Your task to perform on an android device: turn off javascript in the chrome app Image 0: 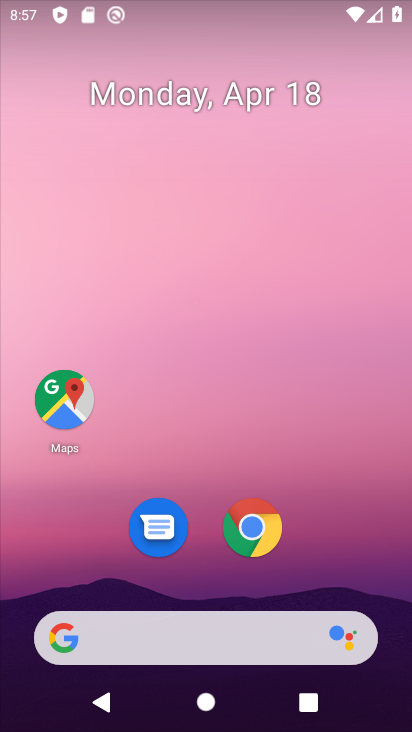
Step 0: click (311, 196)
Your task to perform on an android device: turn off javascript in the chrome app Image 1: 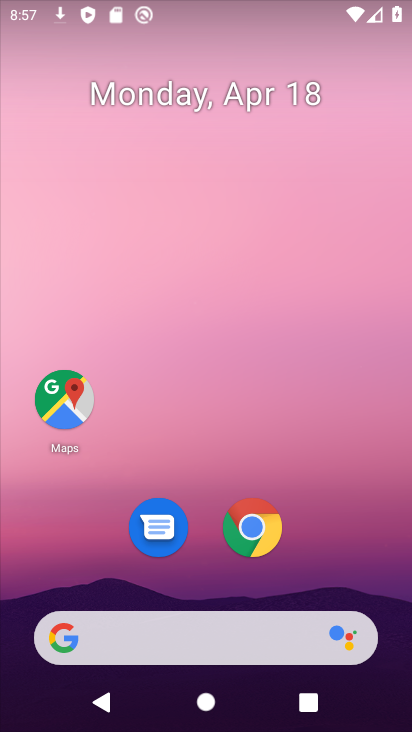
Step 1: click (244, 530)
Your task to perform on an android device: turn off javascript in the chrome app Image 2: 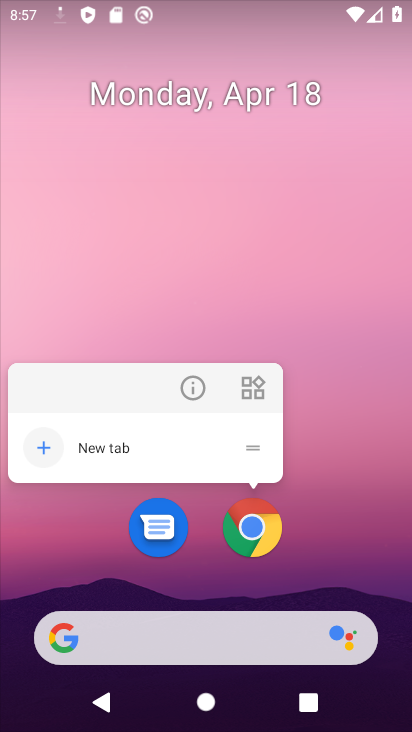
Step 2: click (244, 530)
Your task to perform on an android device: turn off javascript in the chrome app Image 3: 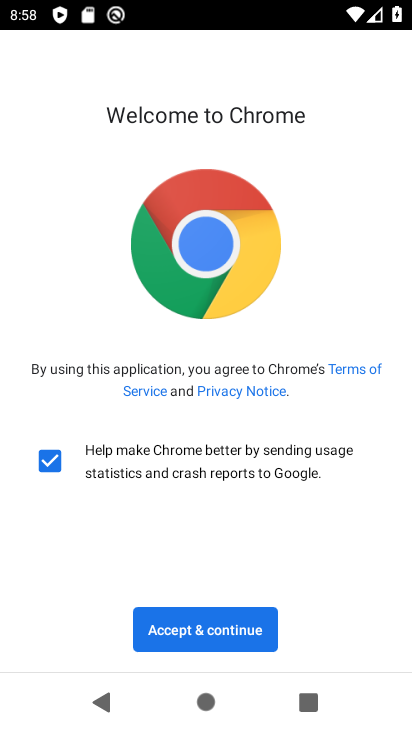
Step 3: click (222, 618)
Your task to perform on an android device: turn off javascript in the chrome app Image 4: 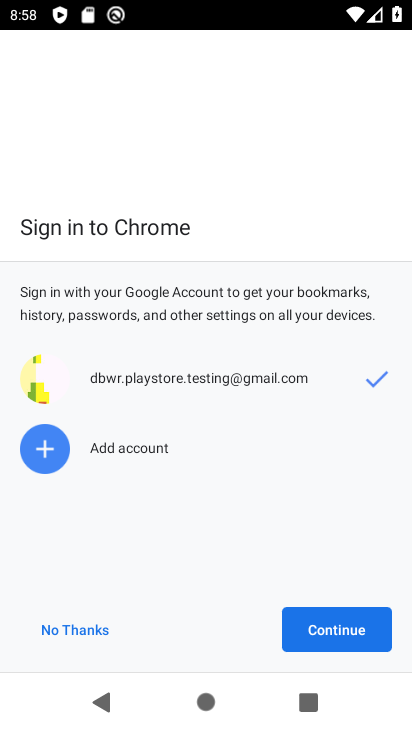
Step 4: click (314, 620)
Your task to perform on an android device: turn off javascript in the chrome app Image 5: 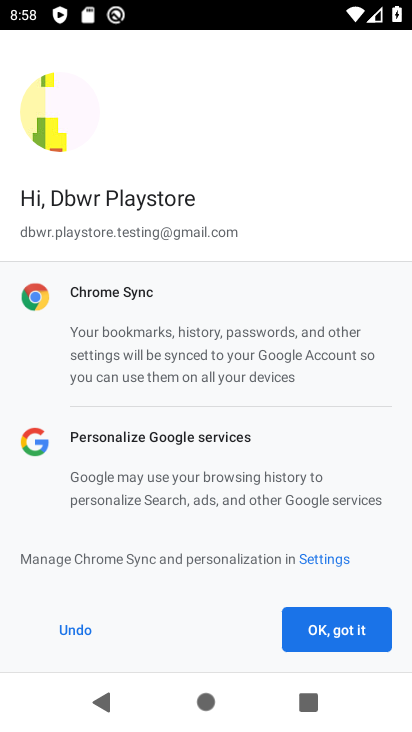
Step 5: click (314, 620)
Your task to perform on an android device: turn off javascript in the chrome app Image 6: 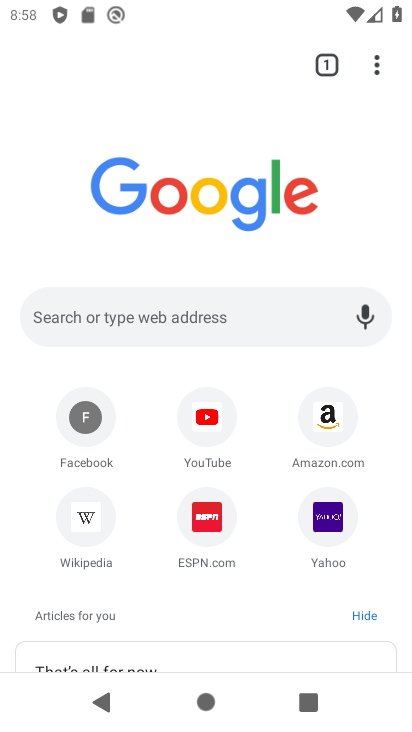
Step 6: click (373, 62)
Your task to perform on an android device: turn off javascript in the chrome app Image 7: 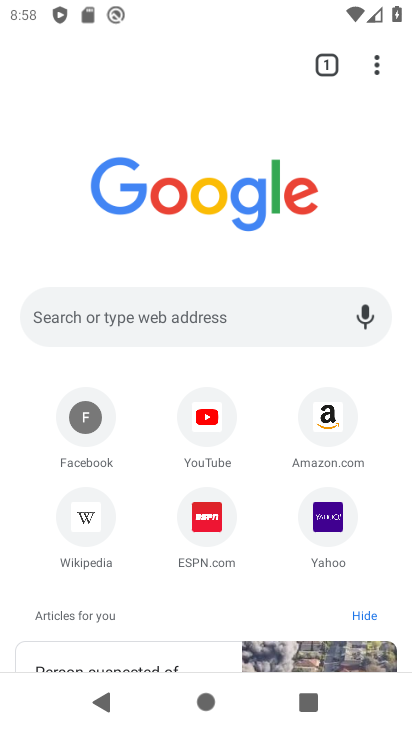
Step 7: click (372, 67)
Your task to perform on an android device: turn off javascript in the chrome app Image 8: 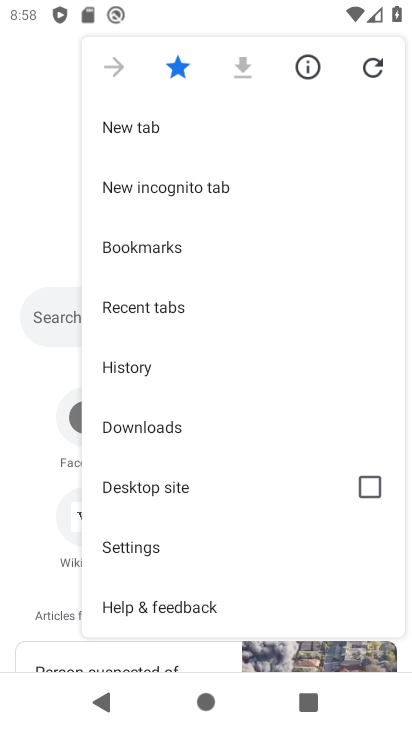
Step 8: click (125, 547)
Your task to perform on an android device: turn off javascript in the chrome app Image 9: 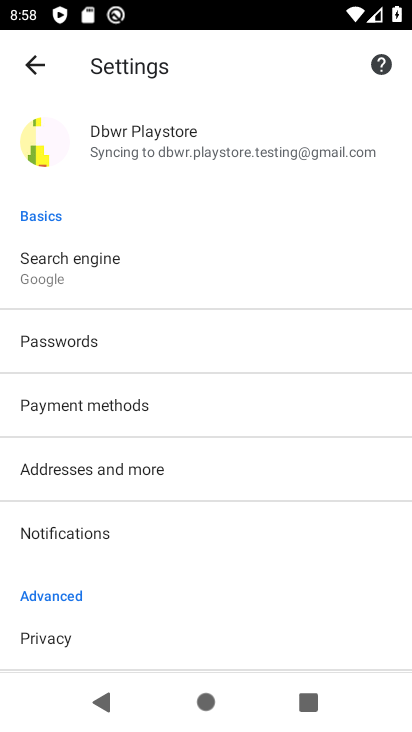
Step 9: drag from (258, 588) to (278, 289)
Your task to perform on an android device: turn off javascript in the chrome app Image 10: 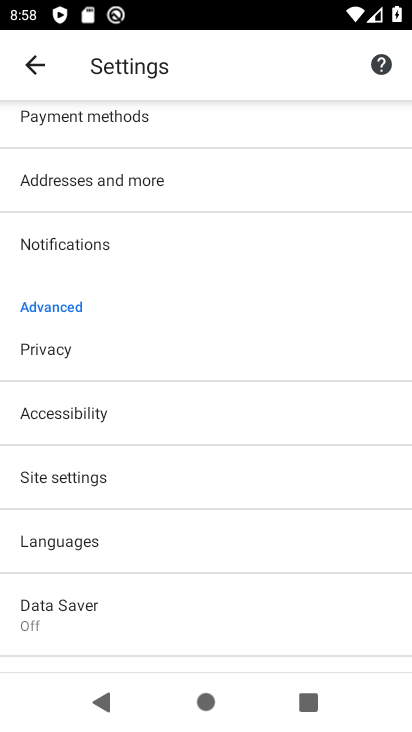
Step 10: click (79, 474)
Your task to perform on an android device: turn off javascript in the chrome app Image 11: 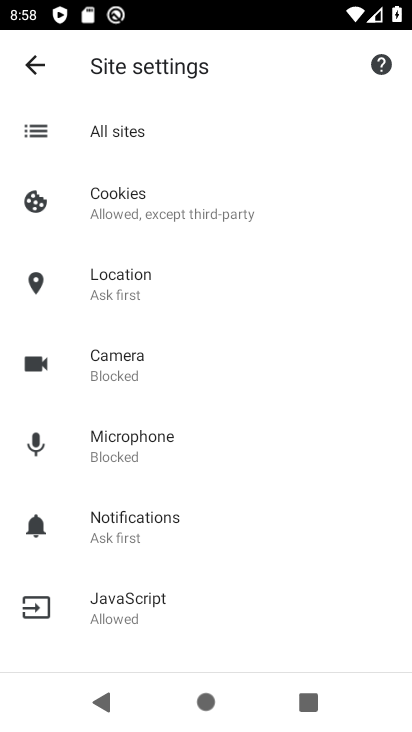
Step 11: drag from (261, 604) to (244, 312)
Your task to perform on an android device: turn off javascript in the chrome app Image 12: 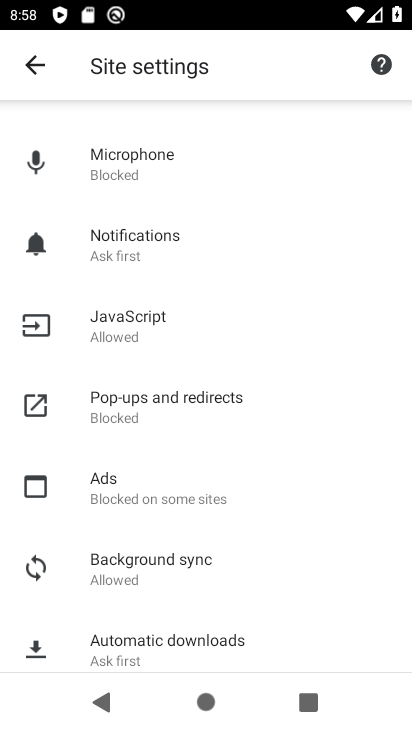
Step 12: drag from (279, 581) to (280, 279)
Your task to perform on an android device: turn off javascript in the chrome app Image 13: 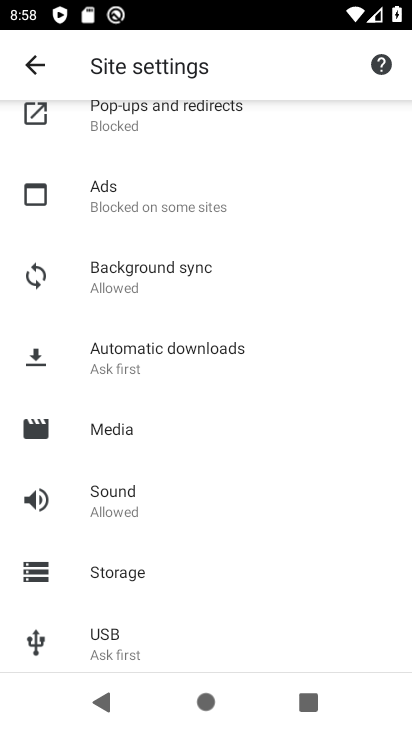
Step 13: drag from (280, 598) to (283, 356)
Your task to perform on an android device: turn off javascript in the chrome app Image 14: 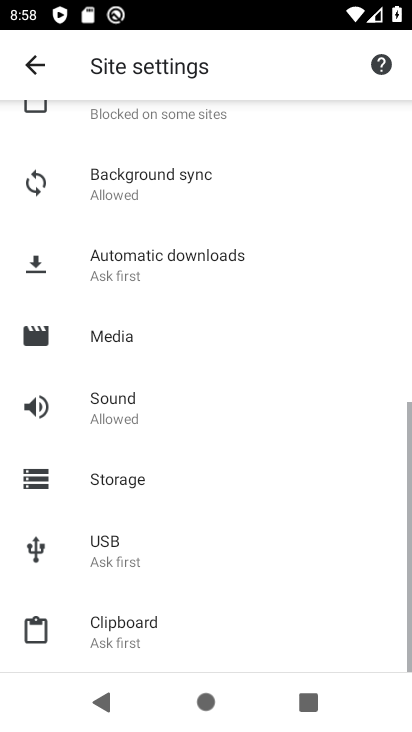
Step 14: drag from (270, 331) to (266, 284)
Your task to perform on an android device: turn off javascript in the chrome app Image 15: 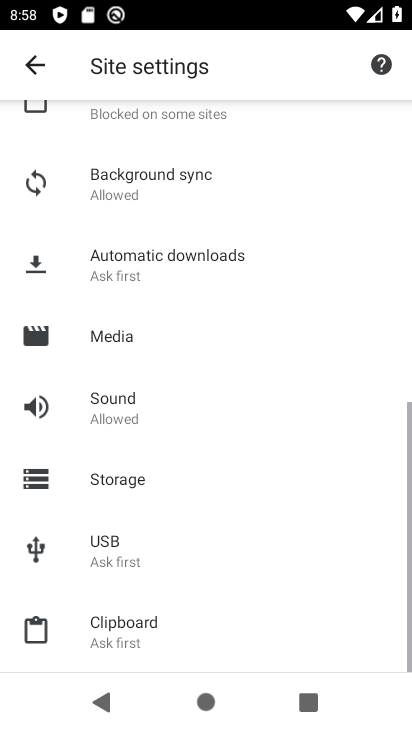
Step 15: drag from (269, 438) to (255, 274)
Your task to perform on an android device: turn off javascript in the chrome app Image 16: 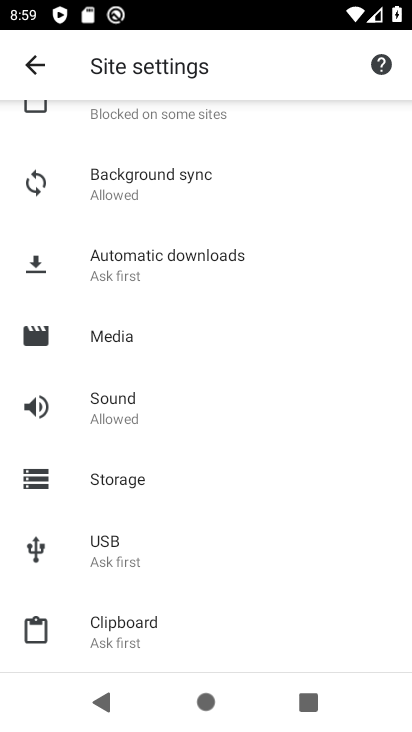
Step 16: drag from (310, 595) to (324, 283)
Your task to perform on an android device: turn off javascript in the chrome app Image 17: 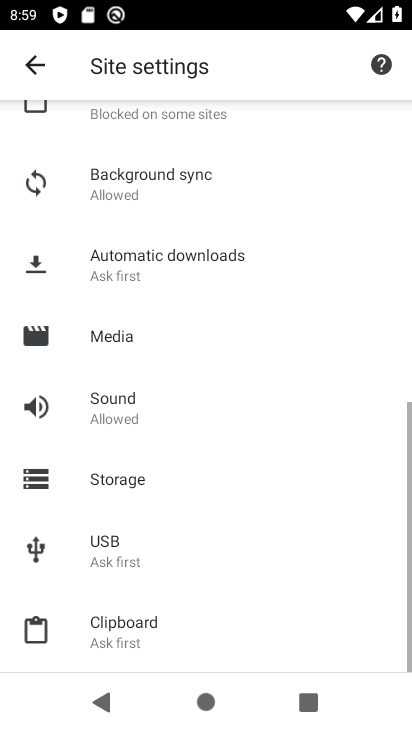
Step 17: drag from (291, 497) to (291, 541)
Your task to perform on an android device: turn off javascript in the chrome app Image 18: 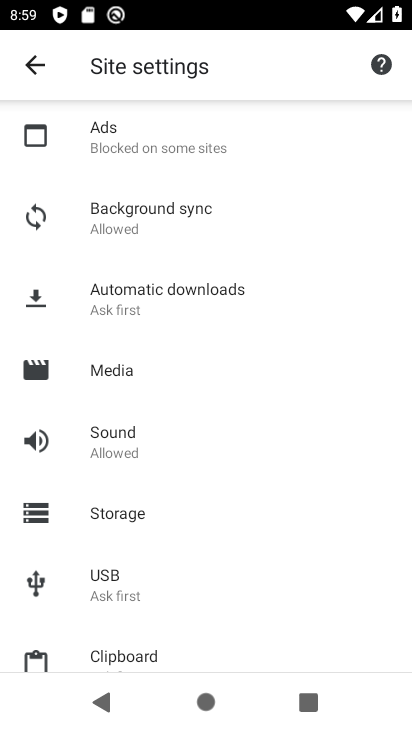
Step 18: drag from (319, 363) to (325, 430)
Your task to perform on an android device: turn off javascript in the chrome app Image 19: 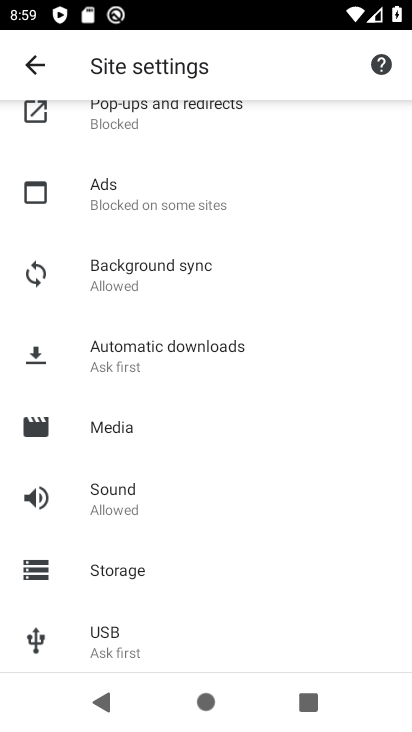
Step 19: click (352, 423)
Your task to perform on an android device: turn off javascript in the chrome app Image 20: 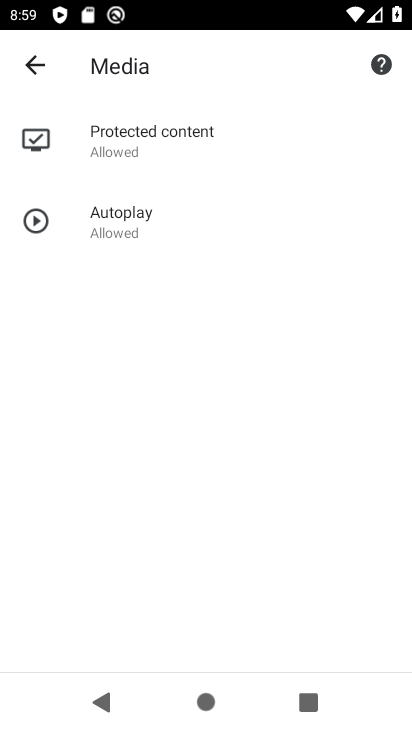
Step 20: click (36, 55)
Your task to perform on an android device: turn off javascript in the chrome app Image 21: 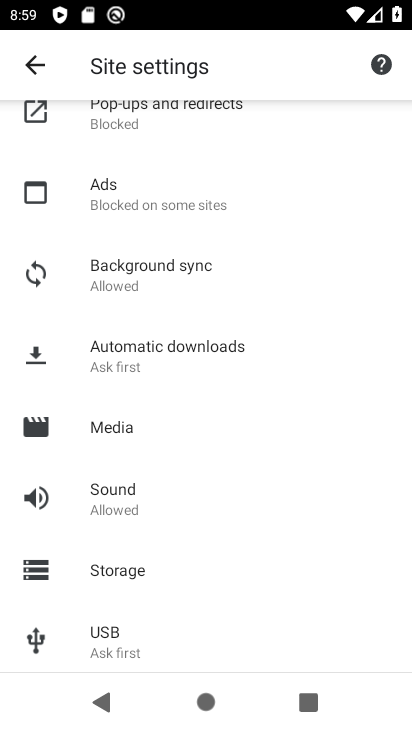
Step 21: drag from (306, 235) to (294, 479)
Your task to perform on an android device: turn off javascript in the chrome app Image 22: 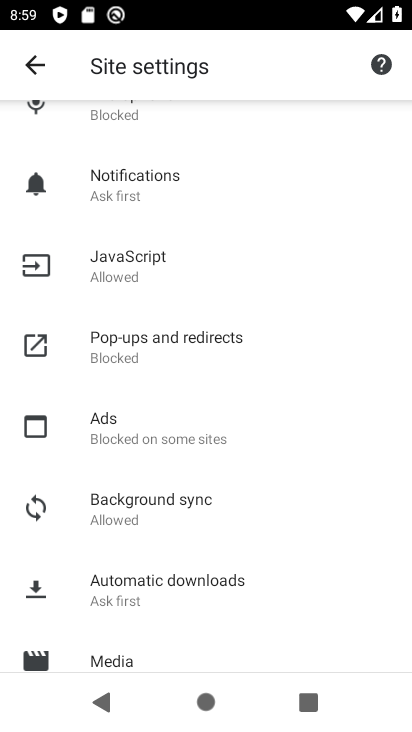
Step 22: click (107, 244)
Your task to perform on an android device: turn off javascript in the chrome app Image 23: 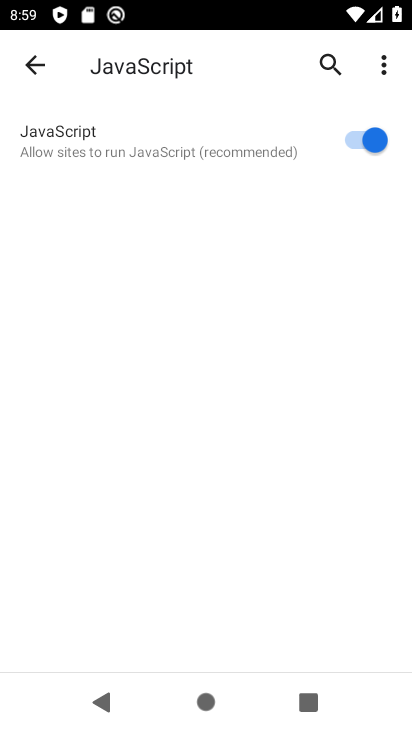
Step 23: click (349, 144)
Your task to perform on an android device: turn off javascript in the chrome app Image 24: 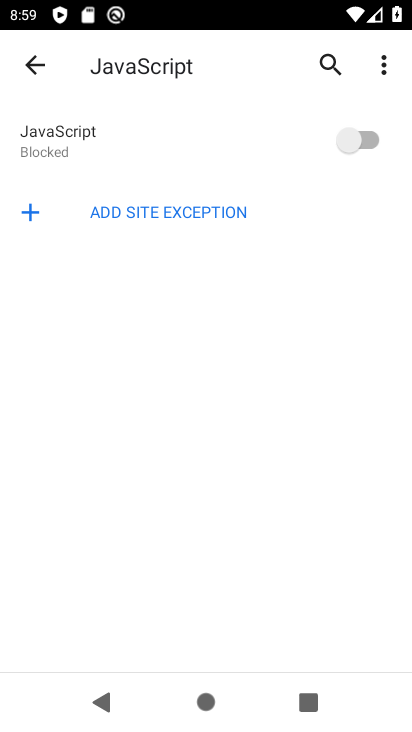
Step 24: task complete